Your task to perform on an android device: Go to accessibility settings Image 0: 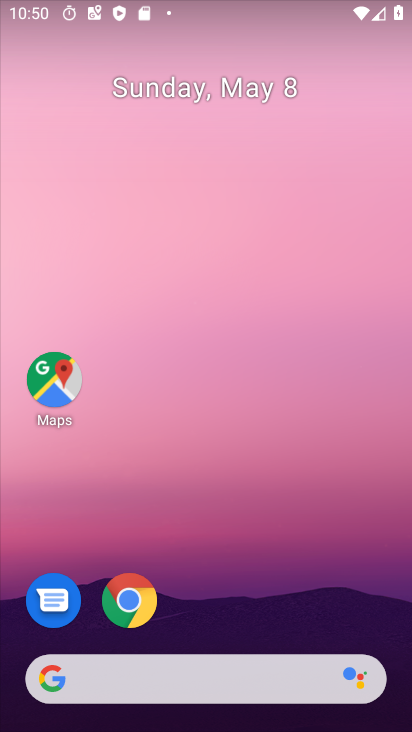
Step 0: drag from (114, 725) to (398, 35)
Your task to perform on an android device: Go to accessibility settings Image 1: 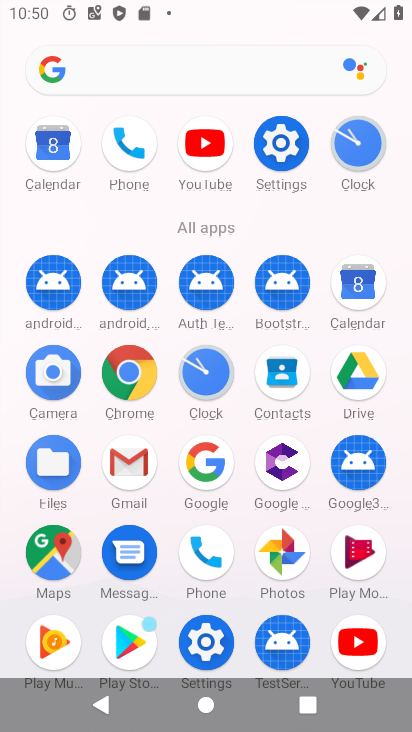
Step 1: click (276, 151)
Your task to perform on an android device: Go to accessibility settings Image 2: 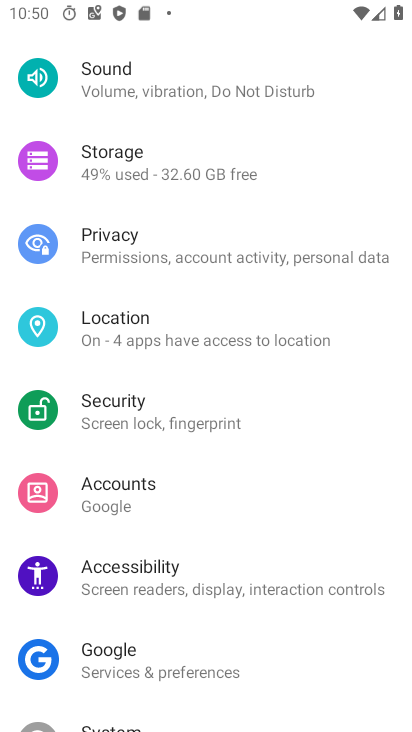
Step 2: click (178, 586)
Your task to perform on an android device: Go to accessibility settings Image 3: 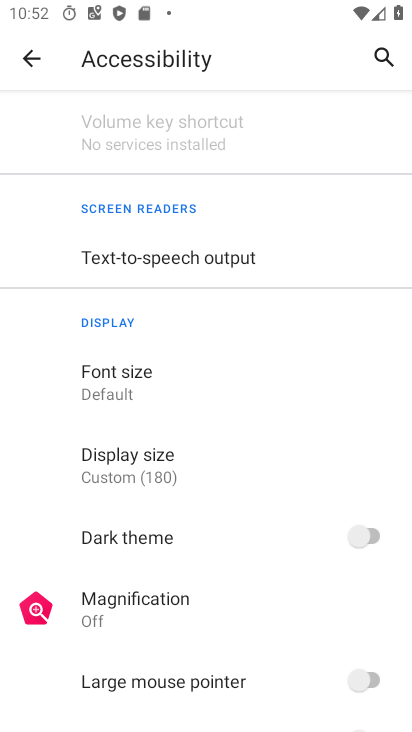
Step 3: task complete